Your task to perform on an android device: check battery use Image 0: 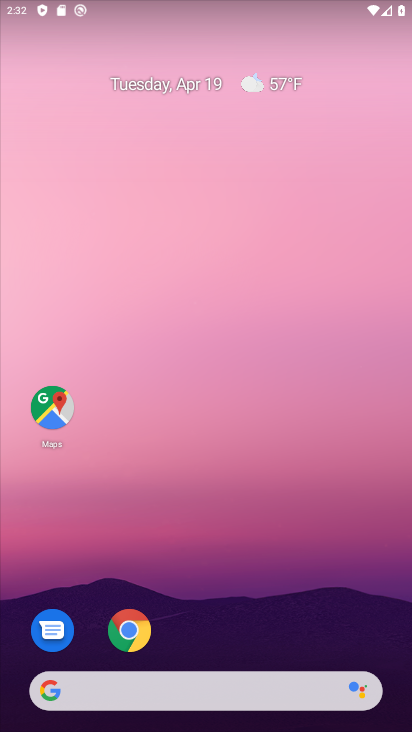
Step 0: drag from (208, 446) to (208, 250)
Your task to perform on an android device: check battery use Image 1: 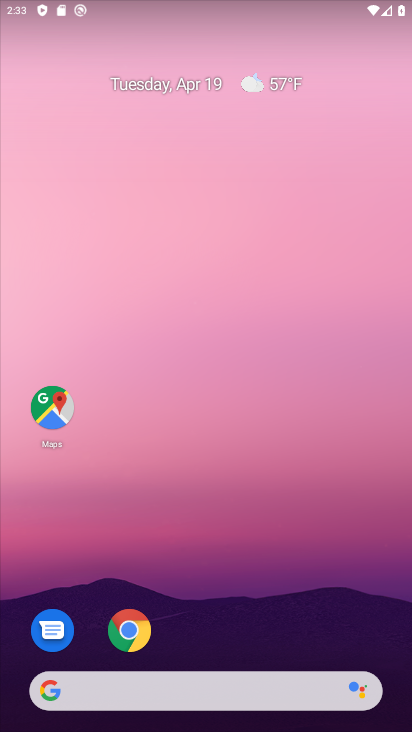
Step 1: drag from (237, 647) to (232, 222)
Your task to perform on an android device: check battery use Image 2: 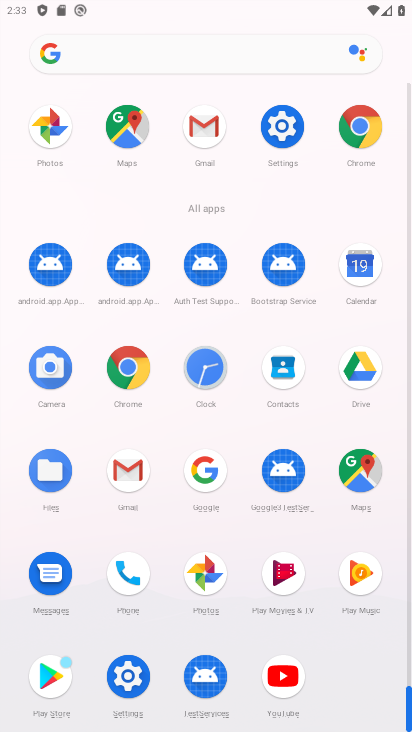
Step 2: click (284, 133)
Your task to perform on an android device: check battery use Image 3: 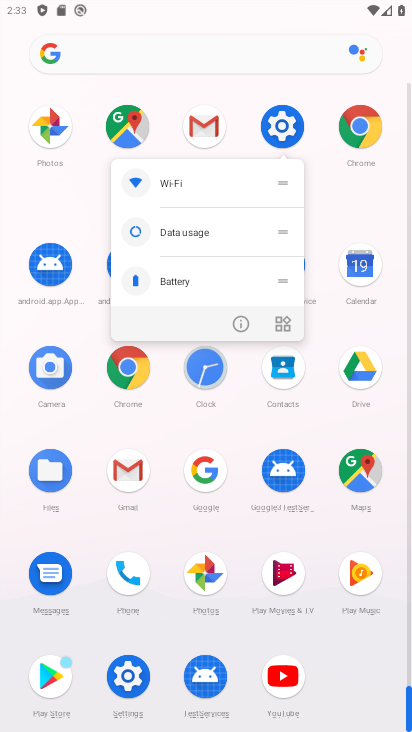
Step 3: click (275, 135)
Your task to perform on an android device: check battery use Image 4: 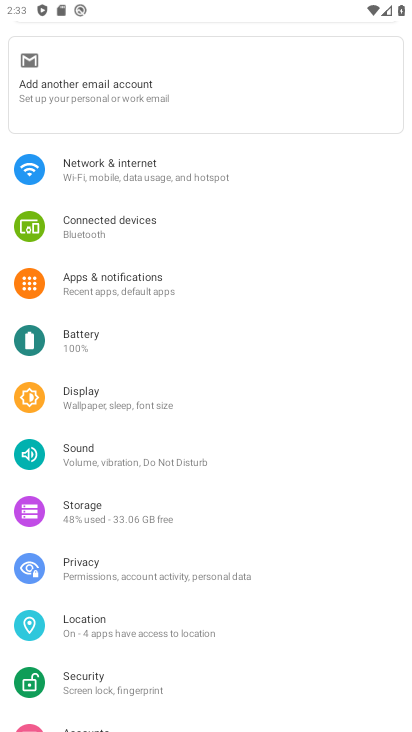
Step 4: click (131, 339)
Your task to perform on an android device: check battery use Image 5: 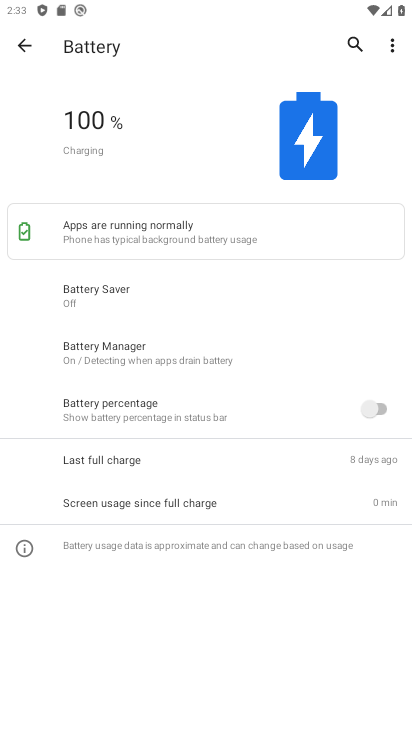
Step 5: click (392, 45)
Your task to perform on an android device: check battery use Image 6: 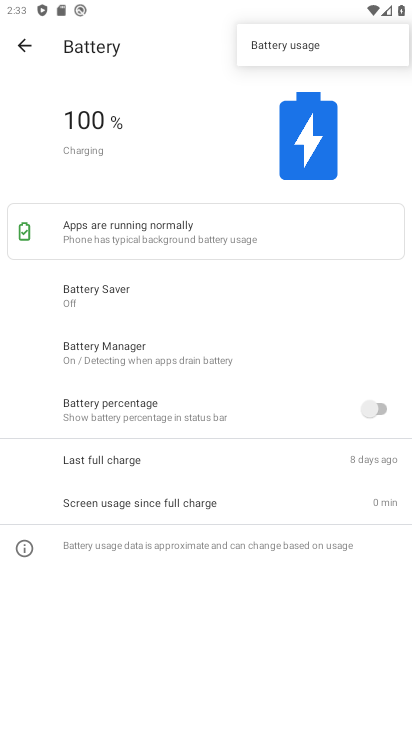
Step 6: click (327, 41)
Your task to perform on an android device: check battery use Image 7: 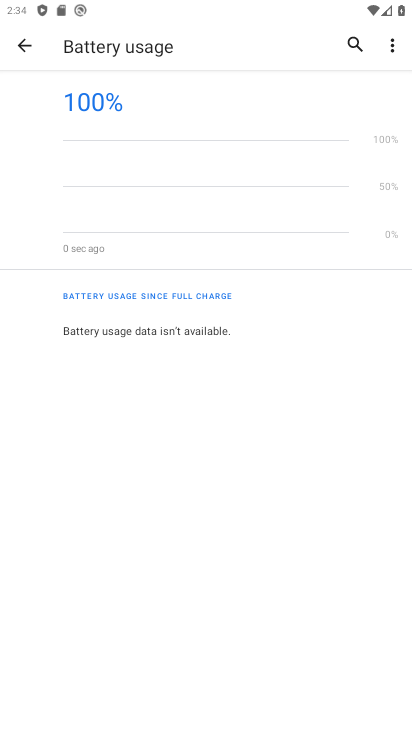
Step 7: task complete